Your task to perform on an android device: Open the calendar and show me this week's events Image 0: 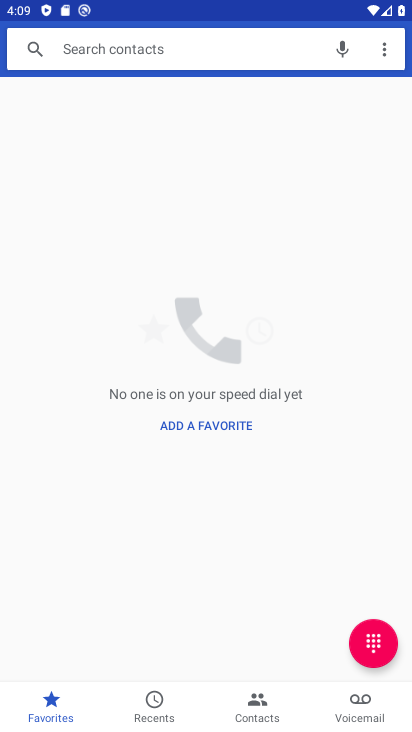
Step 0: press back button
Your task to perform on an android device: Open the calendar and show me this week's events Image 1: 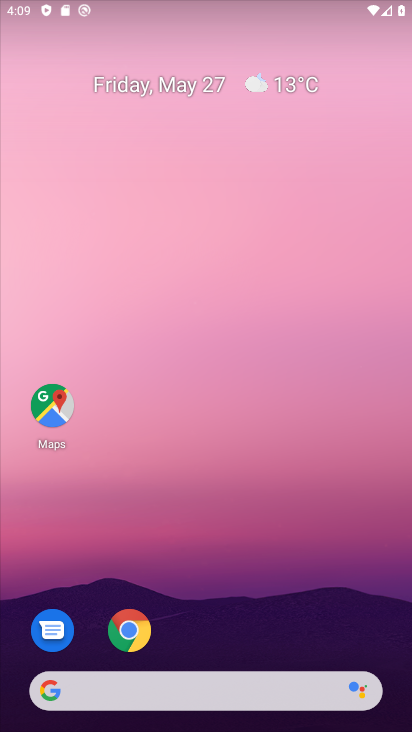
Step 1: drag from (214, 567) to (256, 26)
Your task to perform on an android device: Open the calendar and show me this week's events Image 2: 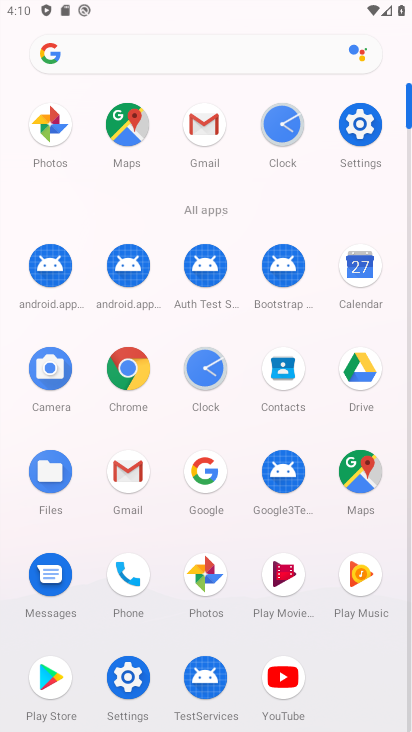
Step 2: click (355, 271)
Your task to perform on an android device: Open the calendar and show me this week's events Image 3: 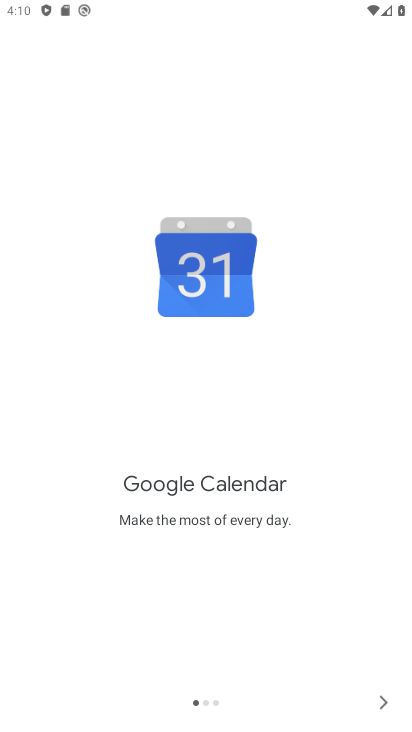
Step 3: click (368, 703)
Your task to perform on an android device: Open the calendar and show me this week's events Image 4: 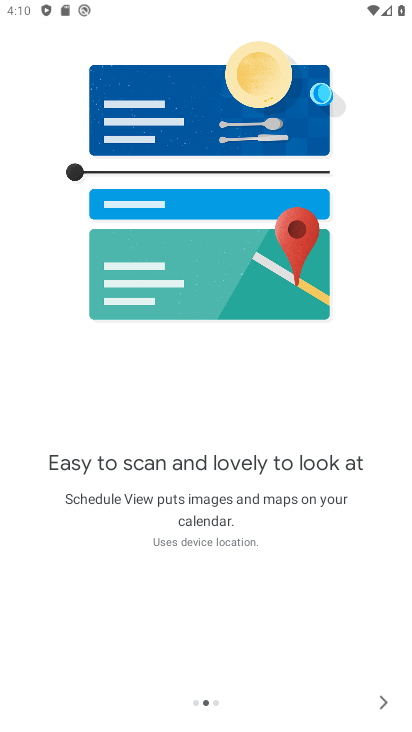
Step 4: click (370, 700)
Your task to perform on an android device: Open the calendar and show me this week's events Image 5: 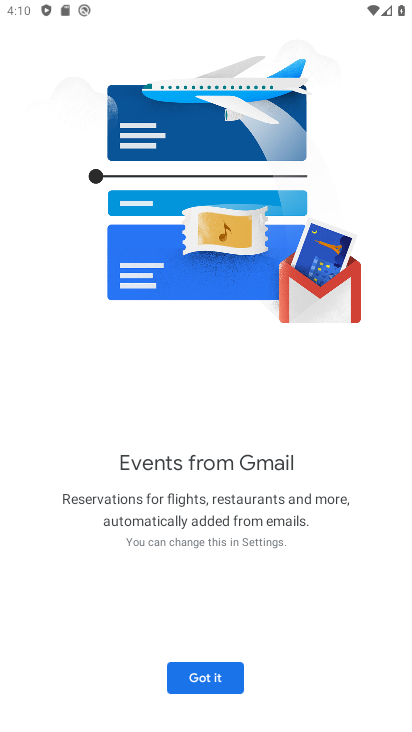
Step 5: click (210, 676)
Your task to perform on an android device: Open the calendar and show me this week's events Image 6: 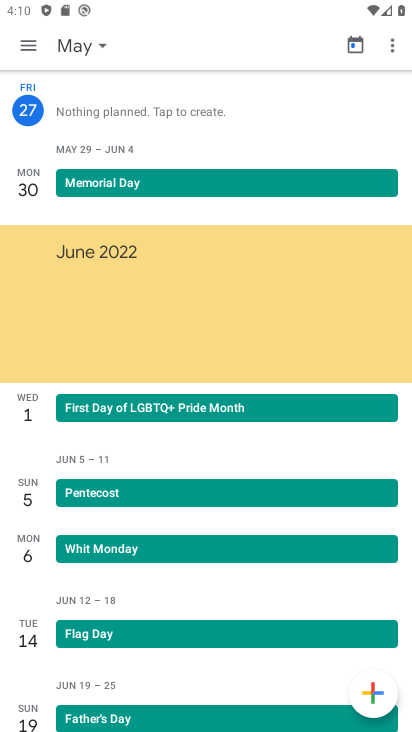
Step 6: task complete